Your task to perform on an android device: Check the settings for the Google Play Books app Image 0: 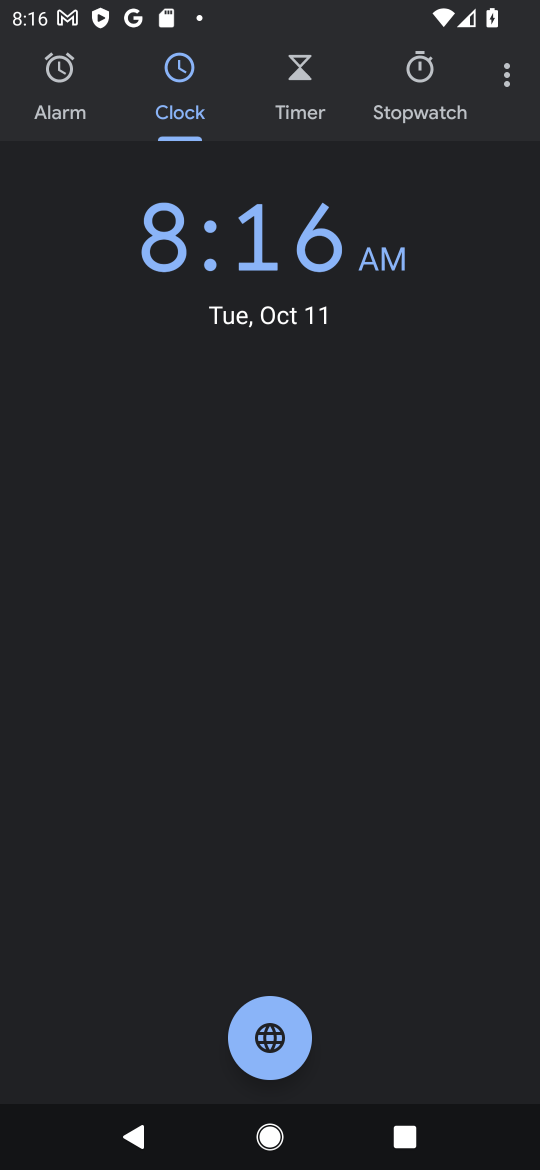
Step 0: press home button
Your task to perform on an android device: Check the settings for the Google Play Books app Image 1: 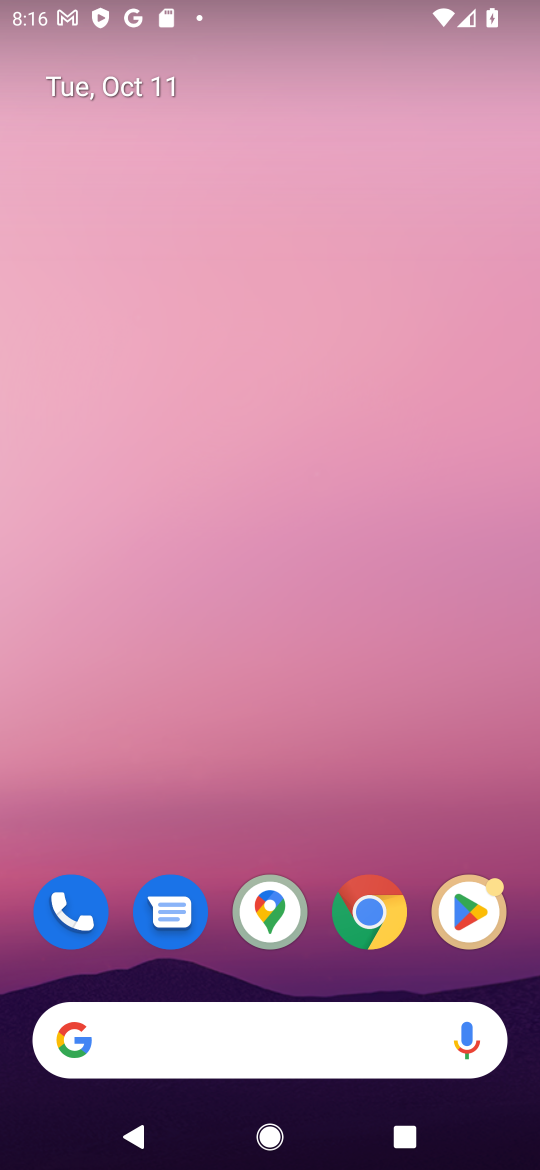
Step 1: click (472, 913)
Your task to perform on an android device: Check the settings for the Google Play Books app Image 2: 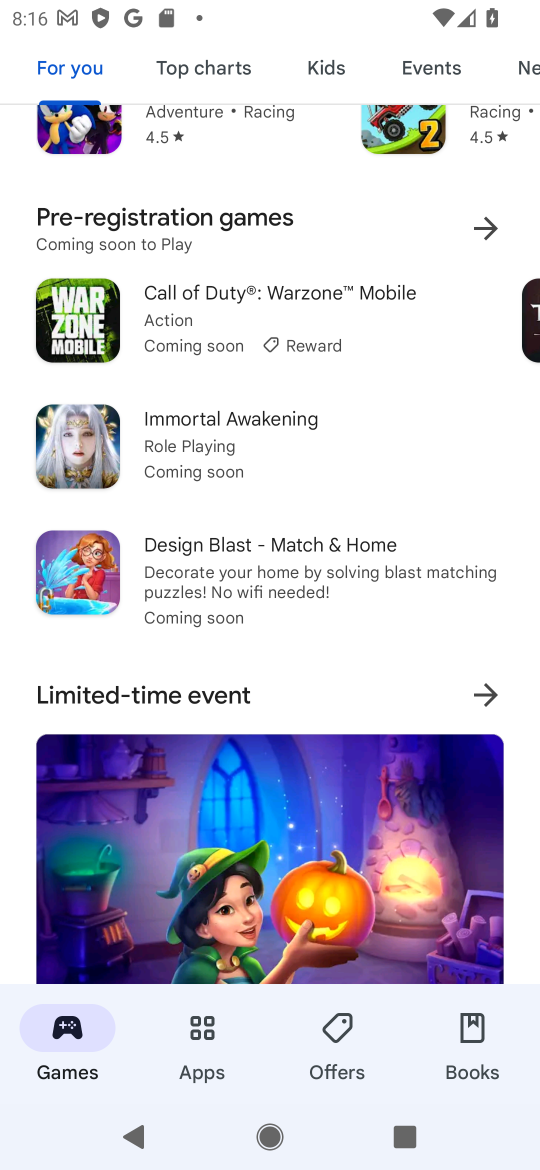
Step 2: drag from (339, 141) to (357, 543)
Your task to perform on an android device: Check the settings for the Google Play Books app Image 3: 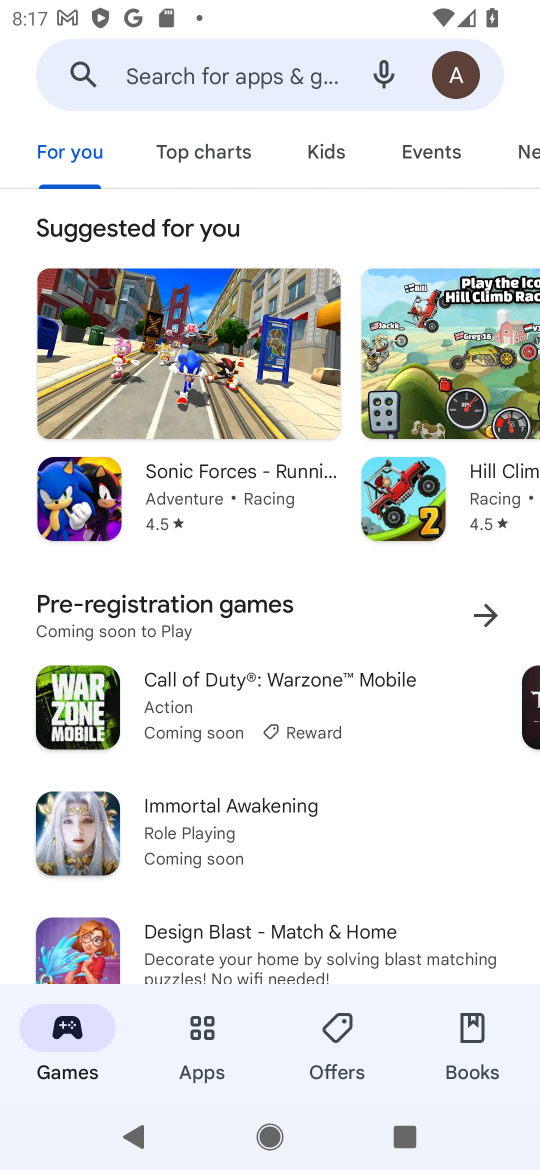
Step 3: click (194, 58)
Your task to perform on an android device: Check the settings for the Google Play Books app Image 4: 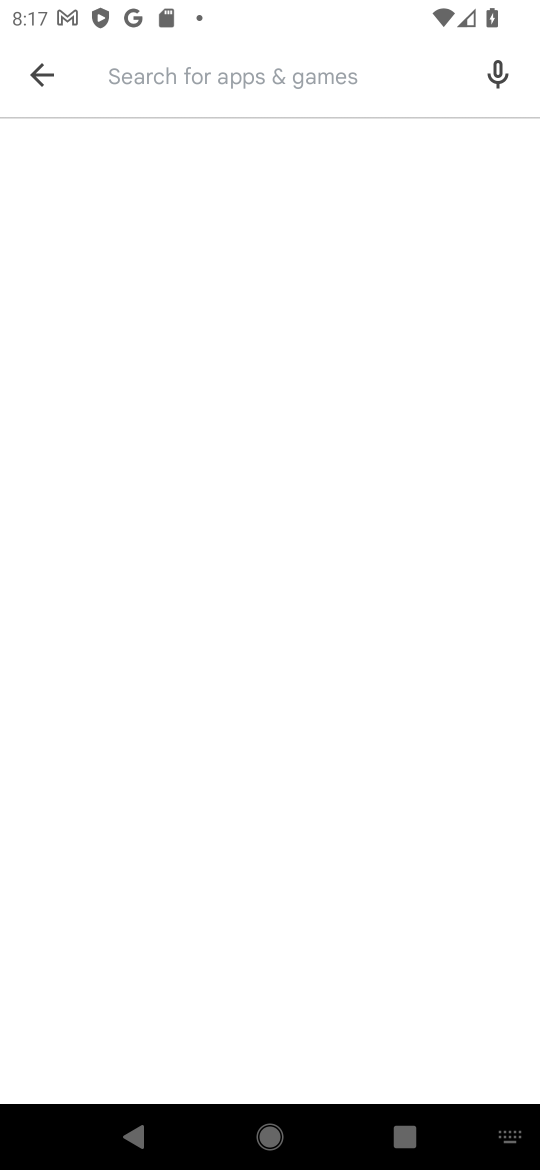
Step 4: type "Google play Books app"
Your task to perform on an android device: Check the settings for the Google Play Books app Image 5: 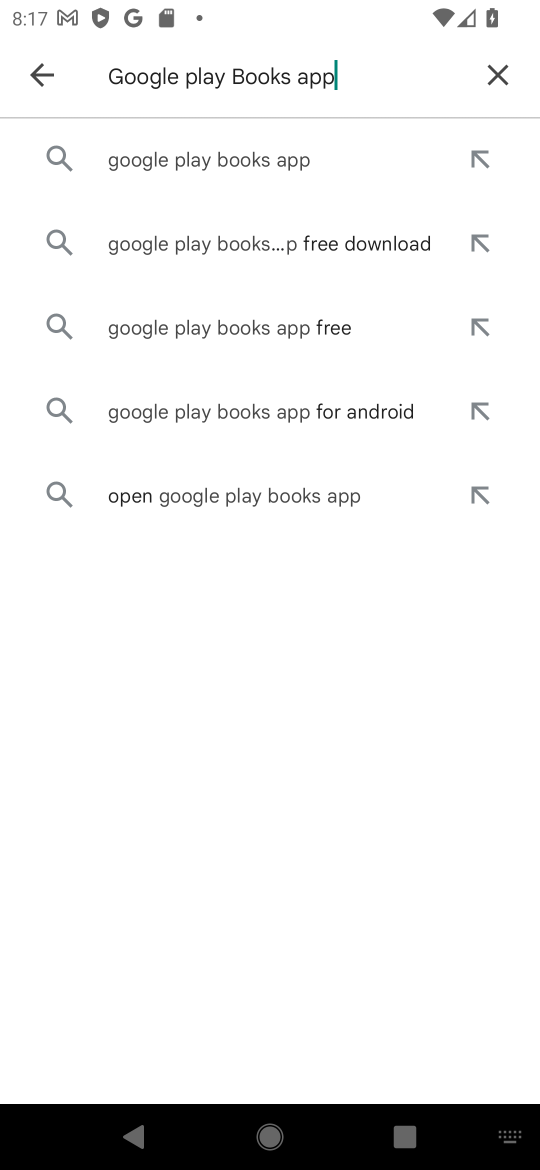
Step 5: click (187, 169)
Your task to perform on an android device: Check the settings for the Google Play Books app Image 6: 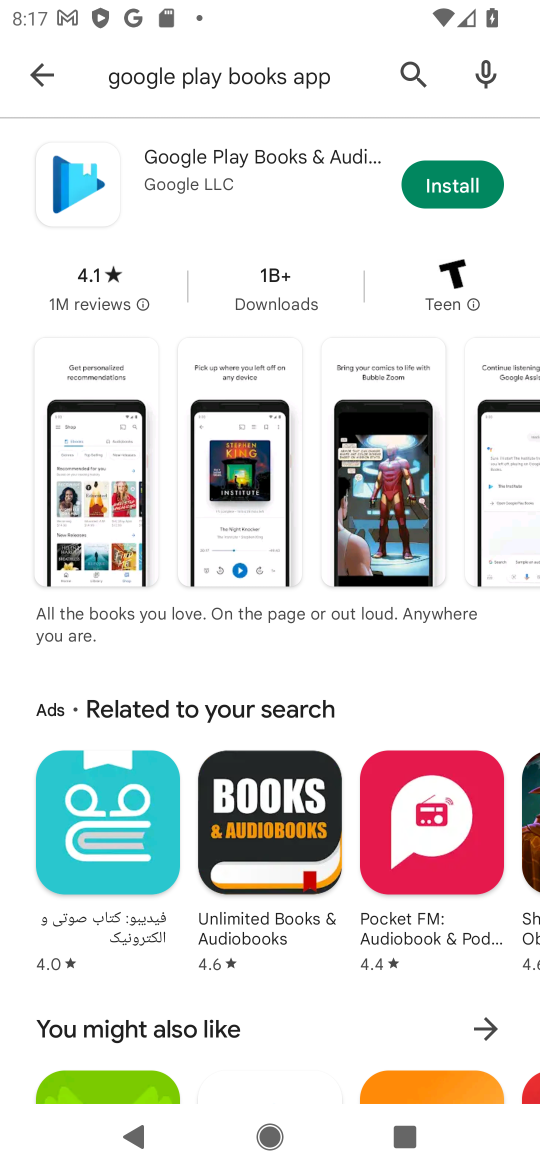
Step 6: click (448, 184)
Your task to perform on an android device: Check the settings for the Google Play Books app Image 7: 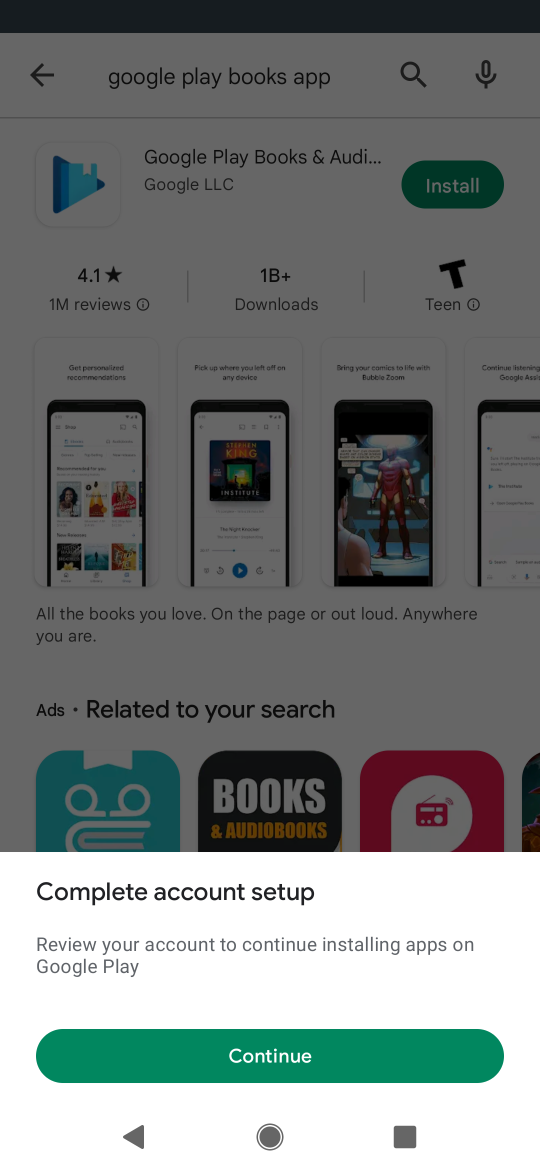
Step 7: click (251, 1062)
Your task to perform on an android device: Check the settings for the Google Play Books app Image 8: 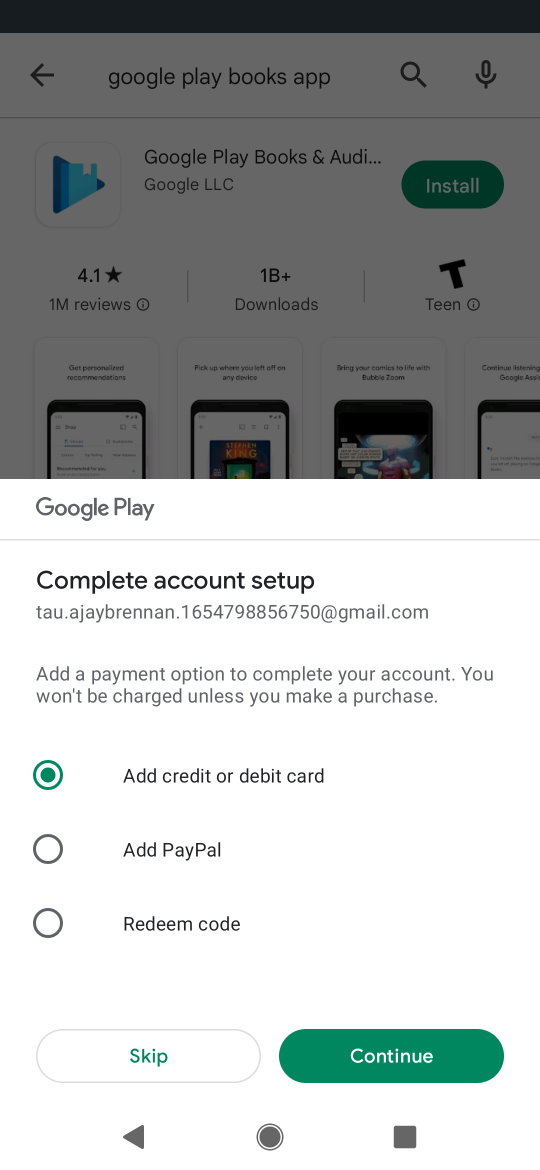
Step 8: click (159, 1048)
Your task to perform on an android device: Check the settings for the Google Play Books app Image 9: 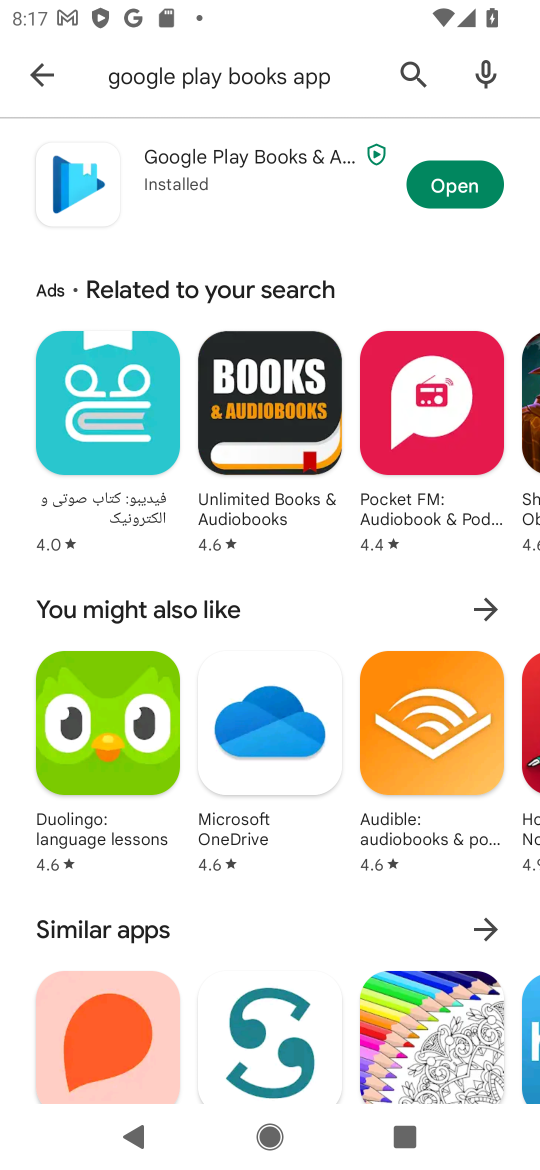
Step 9: click (444, 189)
Your task to perform on an android device: Check the settings for the Google Play Books app Image 10: 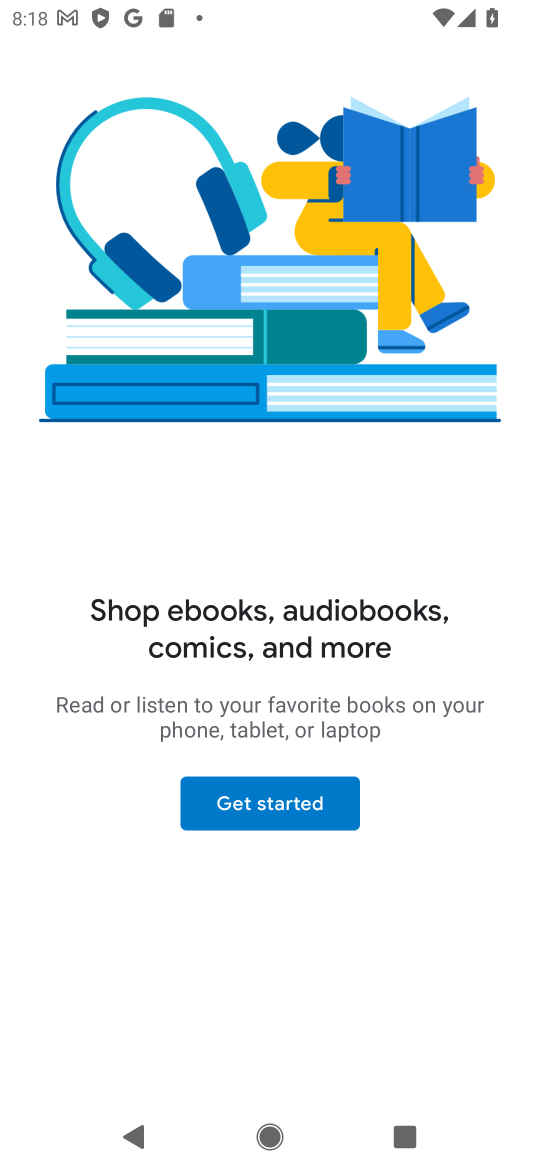
Step 10: click (262, 808)
Your task to perform on an android device: Check the settings for the Google Play Books app Image 11: 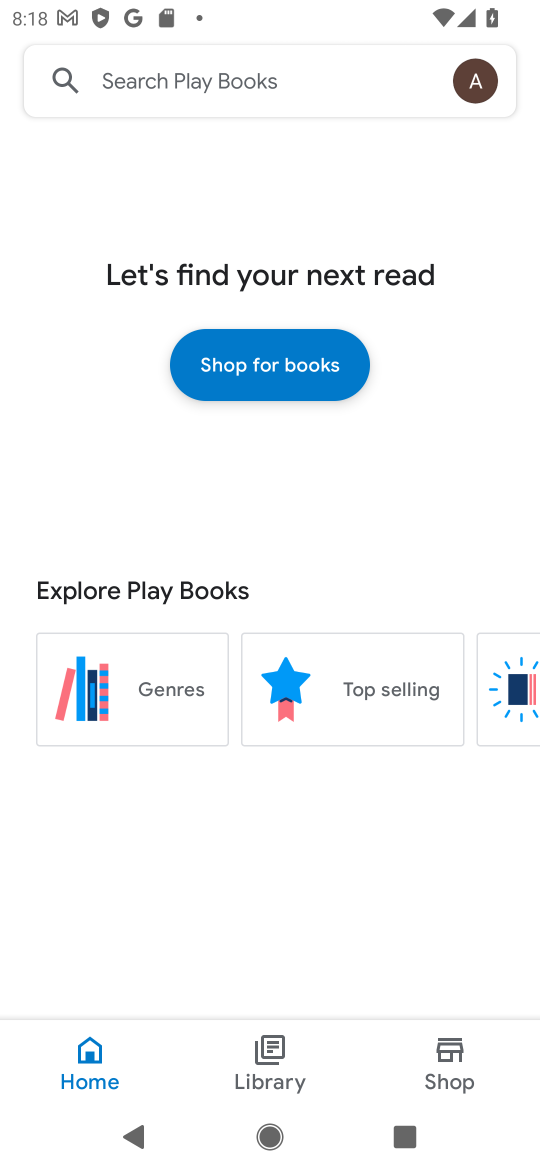
Step 11: click (474, 97)
Your task to perform on an android device: Check the settings for the Google Play Books app Image 12: 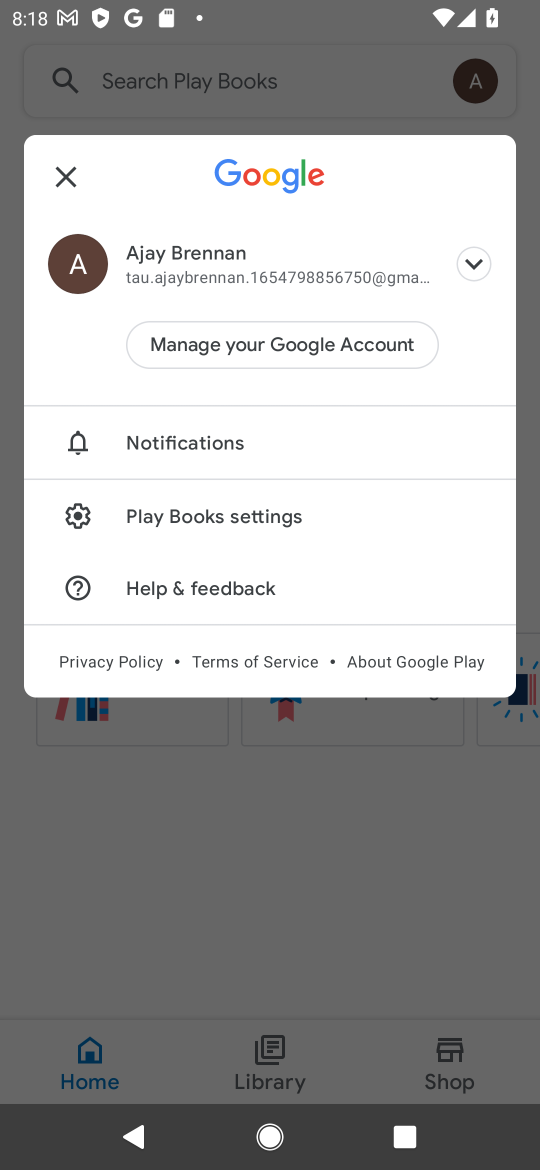
Step 12: click (174, 511)
Your task to perform on an android device: Check the settings for the Google Play Books app Image 13: 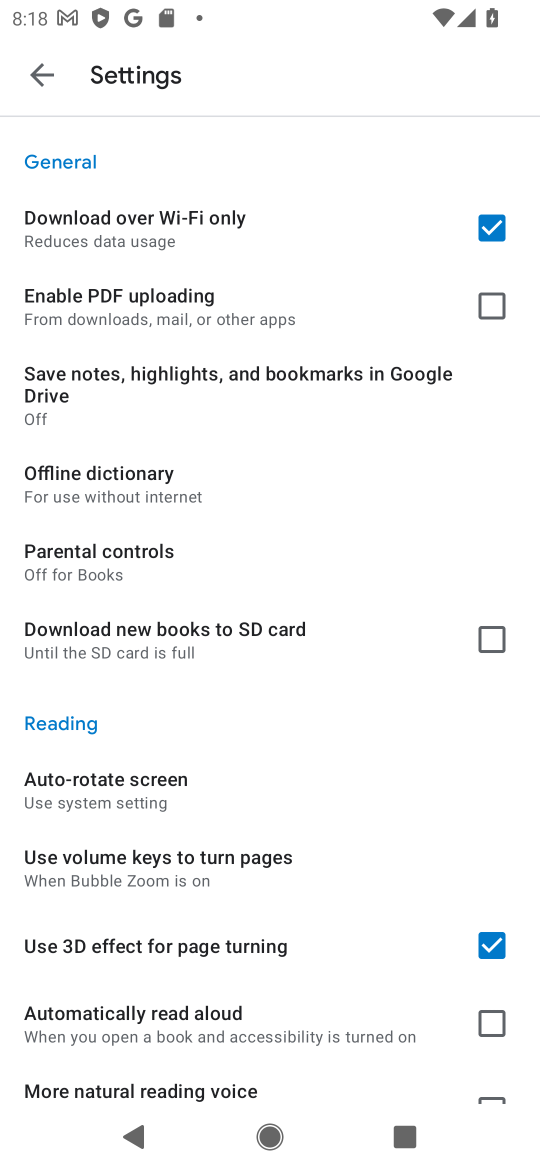
Step 13: task complete